Your task to perform on an android device: turn off notifications settings in the gmail app Image 0: 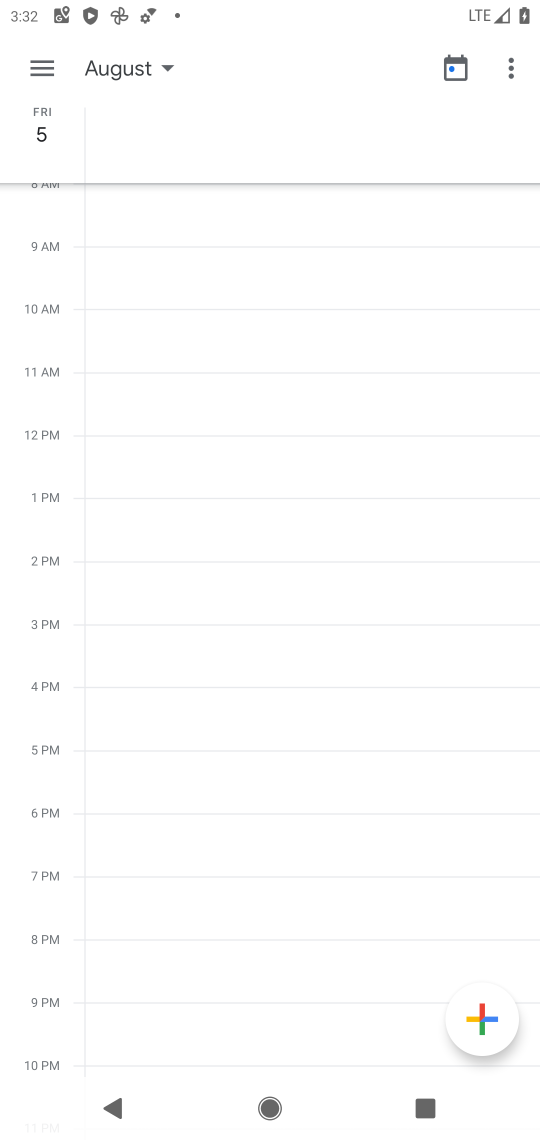
Step 0: press back button
Your task to perform on an android device: turn off notifications settings in the gmail app Image 1: 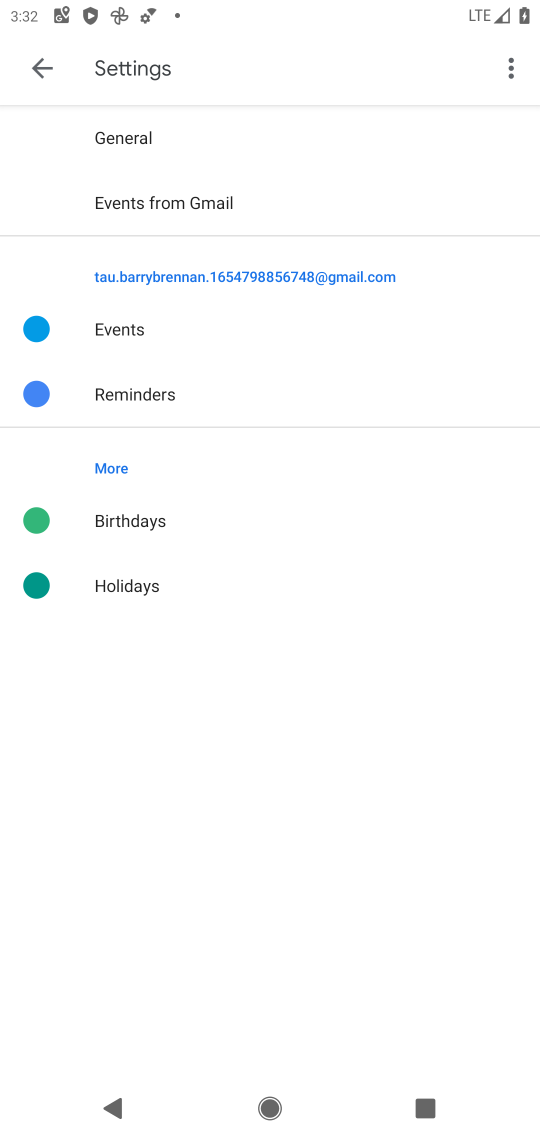
Step 1: press home button
Your task to perform on an android device: turn off notifications settings in the gmail app Image 2: 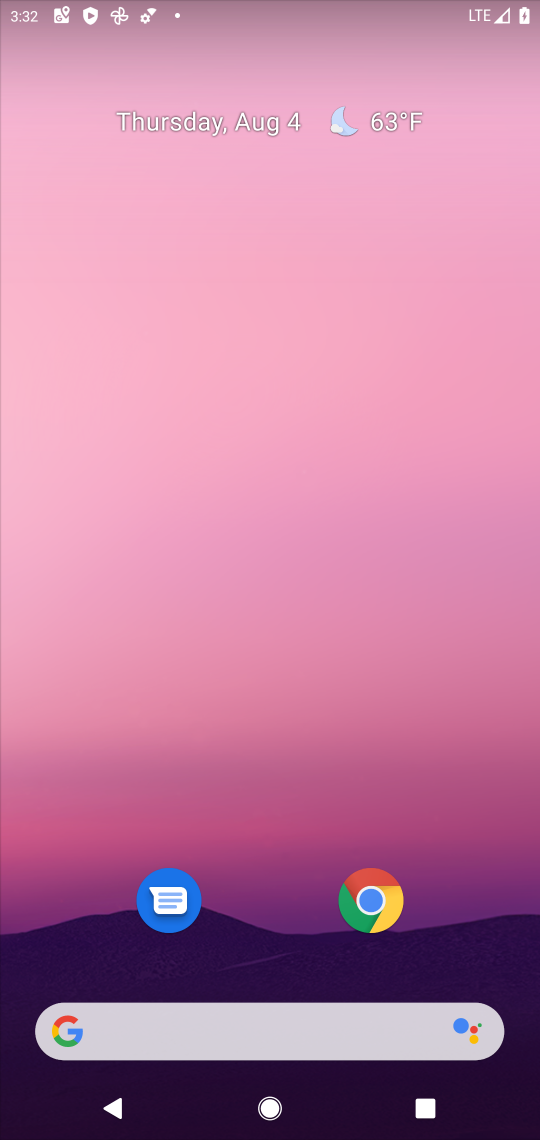
Step 2: drag from (485, 956) to (339, 79)
Your task to perform on an android device: turn off notifications settings in the gmail app Image 3: 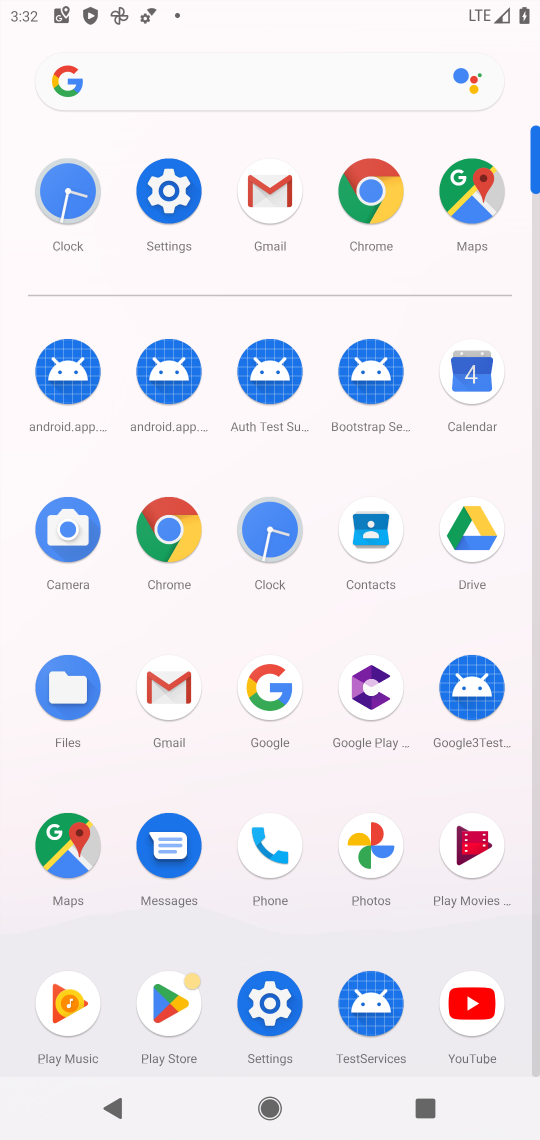
Step 3: click (257, 202)
Your task to perform on an android device: turn off notifications settings in the gmail app Image 4: 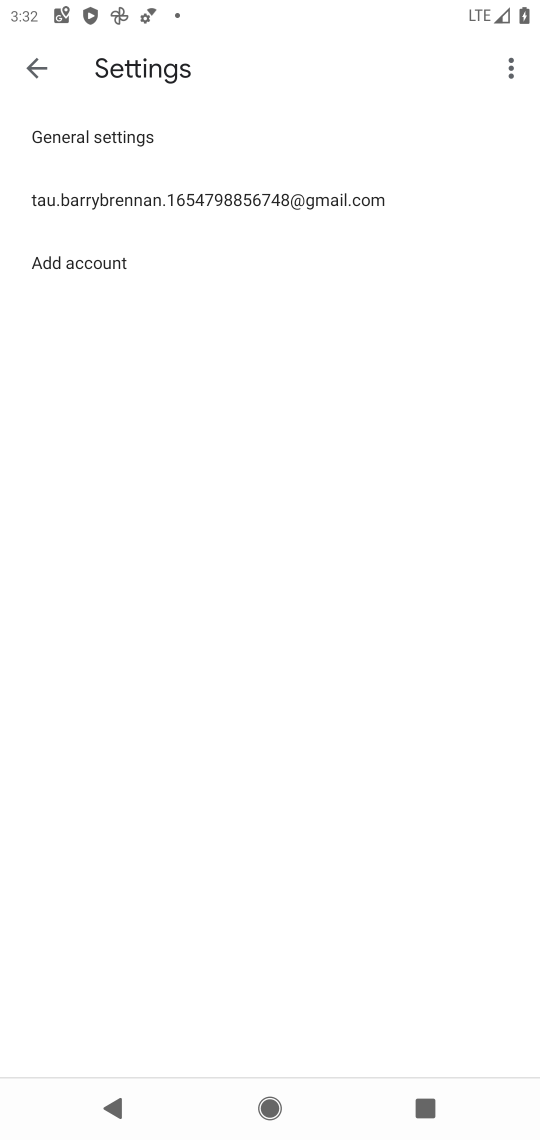
Step 4: click (303, 218)
Your task to perform on an android device: turn off notifications settings in the gmail app Image 5: 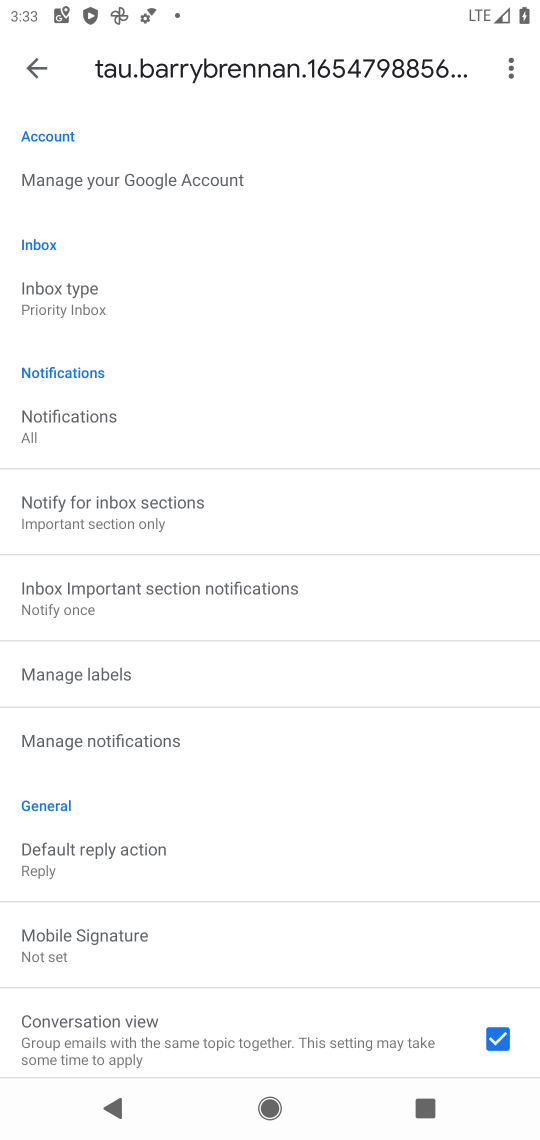
Step 5: click (241, 729)
Your task to perform on an android device: turn off notifications settings in the gmail app Image 6: 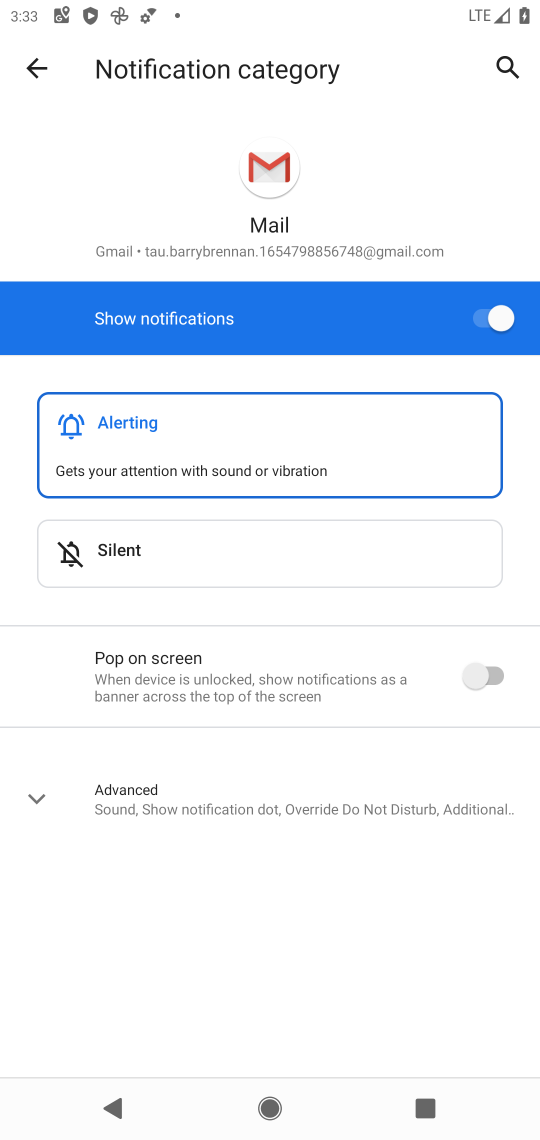
Step 6: click (307, 766)
Your task to perform on an android device: turn off notifications settings in the gmail app Image 7: 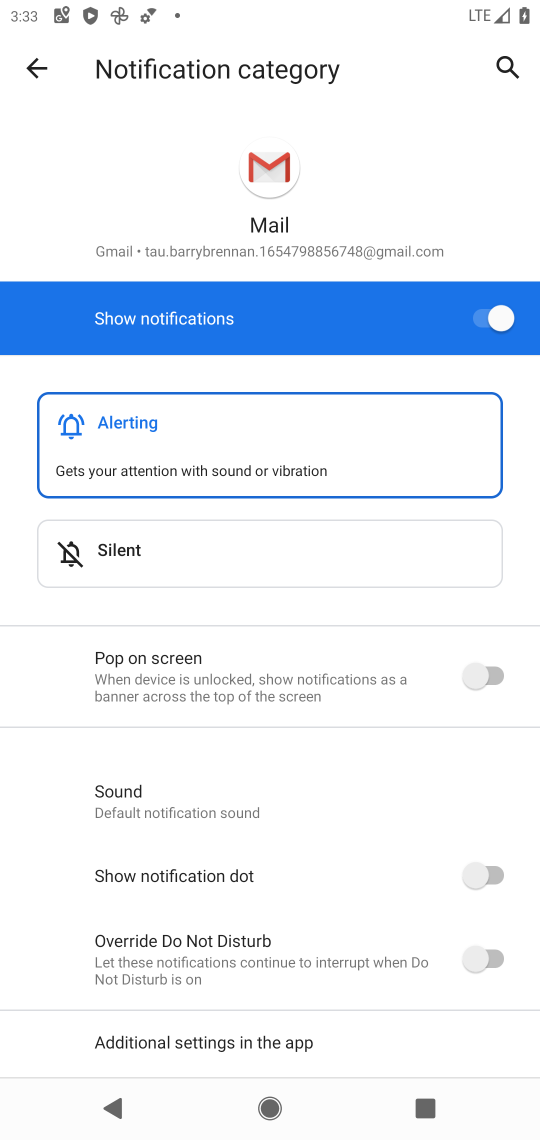
Step 7: task complete